Your task to perform on an android device: clear history in the chrome app Image 0: 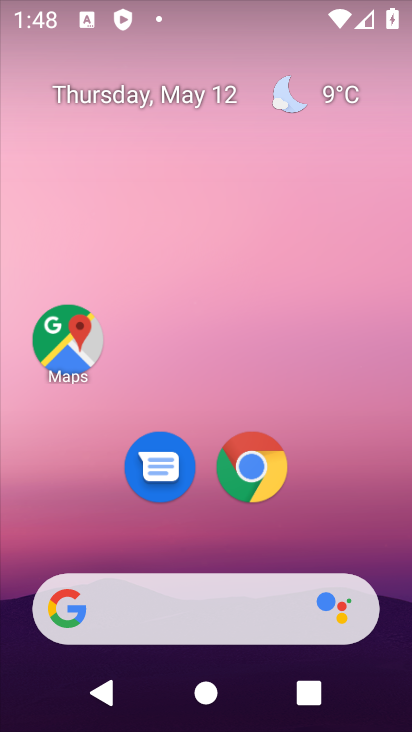
Step 0: drag from (321, 431) to (321, 266)
Your task to perform on an android device: clear history in the chrome app Image 1: 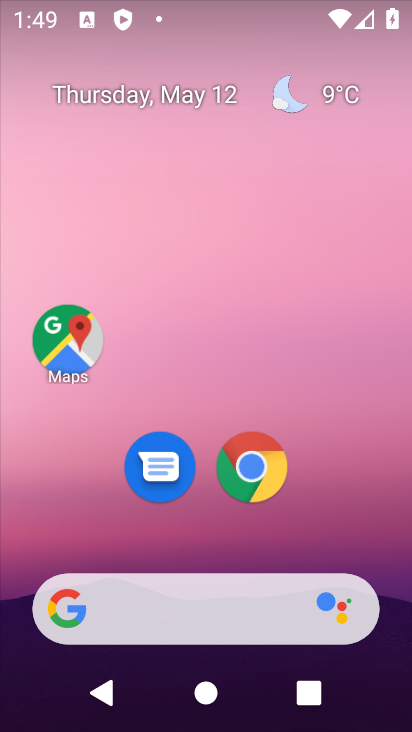
Step 1: drag from (300, 540) to (339, 180)
Your task to perform on an android device: clear history in the chrome app Image 2: 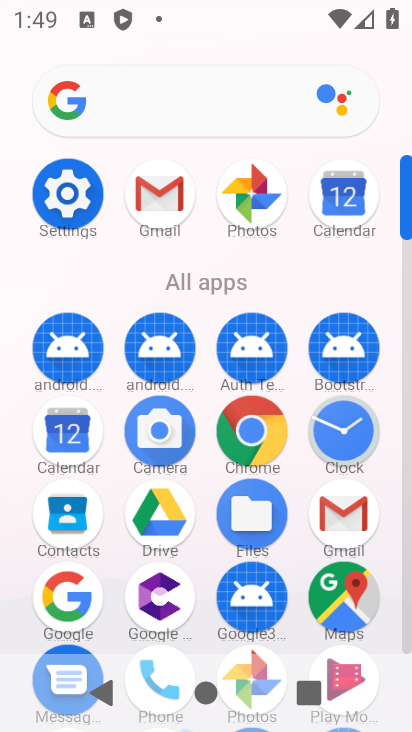
Step 2: click (259, 437)
Your task to perform on an android device: clear history in the chrome app Image 3: 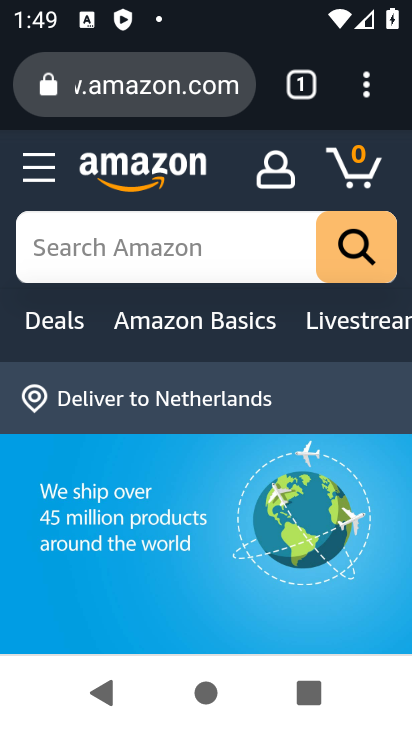
Step 3: click (352, 81)
Your task to perform on an android device: clear history in the chrome app Image 4: 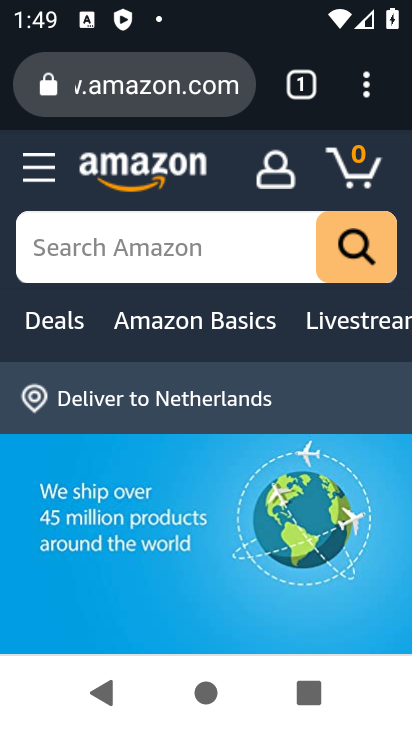
Step 4: click (353, 77)
Your task to perform on an android device: clear history in the chrome app Image 5: 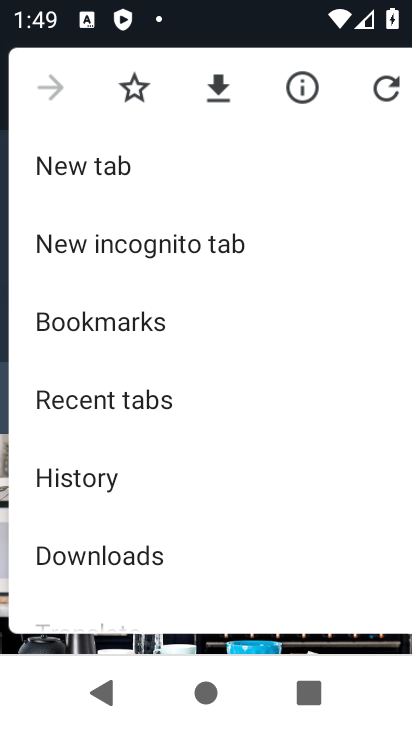
Step 5: click (110, 487)
Your task to perform on an android device: clear history in the chrome app Image 6: 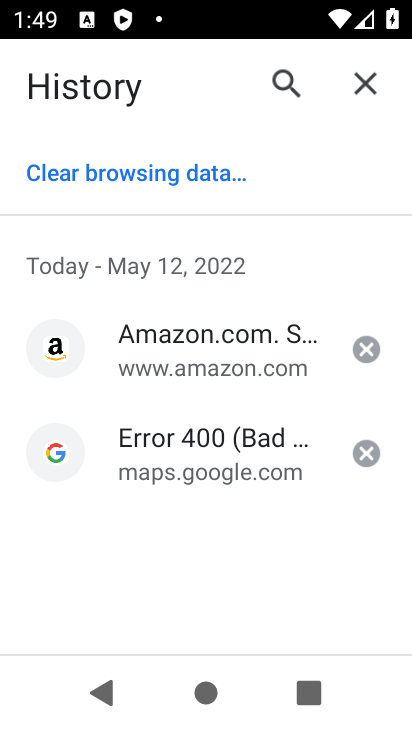
Step 6: click (171, 172)
Your task to perform on an android device: clear history in the chrome app Image 7: 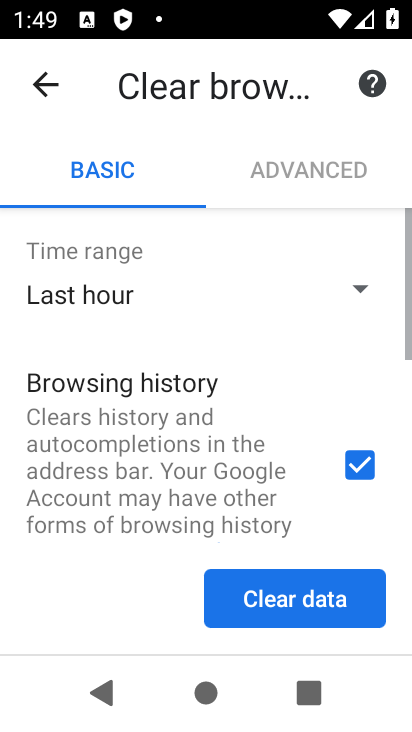
Step 7: click (319, 592)
Your task to perform on an android device: clear history in the chrome app Image 8: 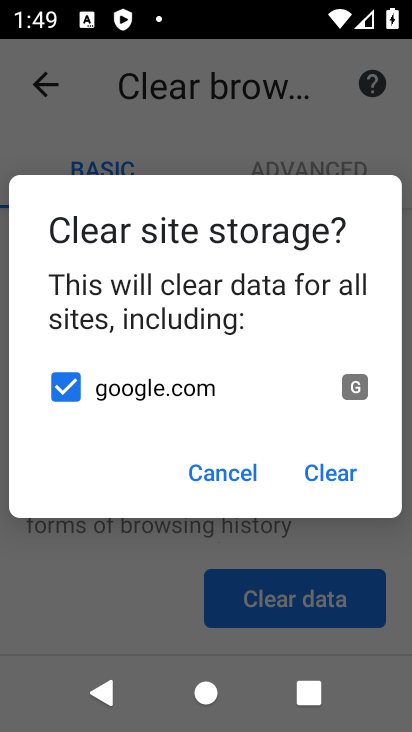
Step 8: click (303, 481)
Your task to perform on an android device: clear history in the chrome app Image 9: 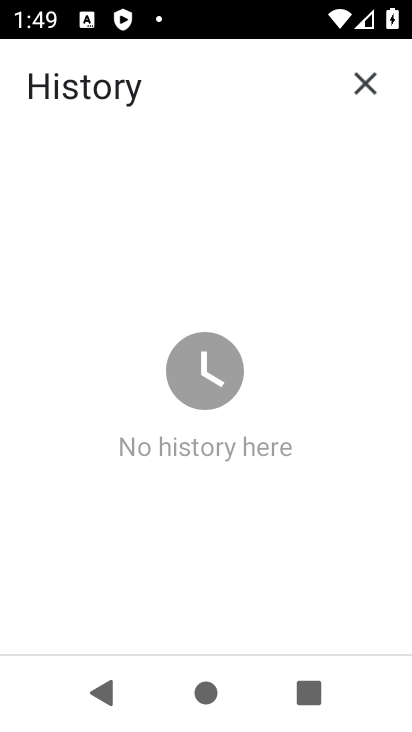
Step 9: task complete